Your task to perform on an android device: Toggle the flashlight Image 0: 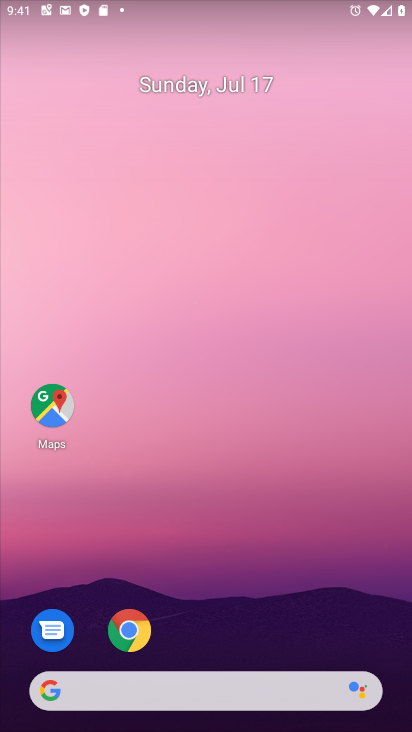
Step 0: drag from (221, 5) to (236, 347)
Your task to perform on an android device: Toggle the flashlight Image 1: 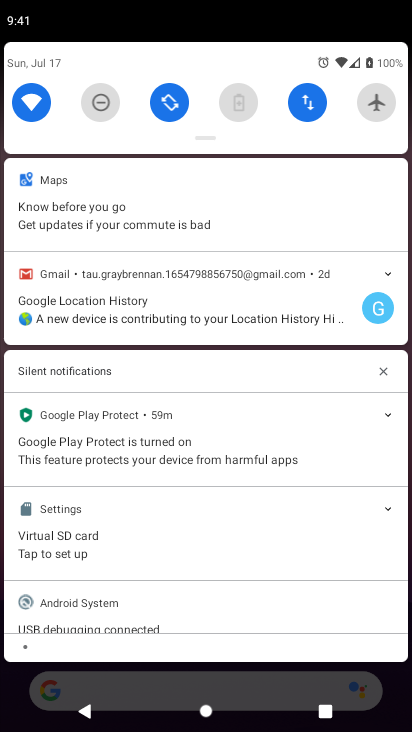
Step 1: task complete